Your task to perform on an android device: delete browsing data in the chrome app Image 0: 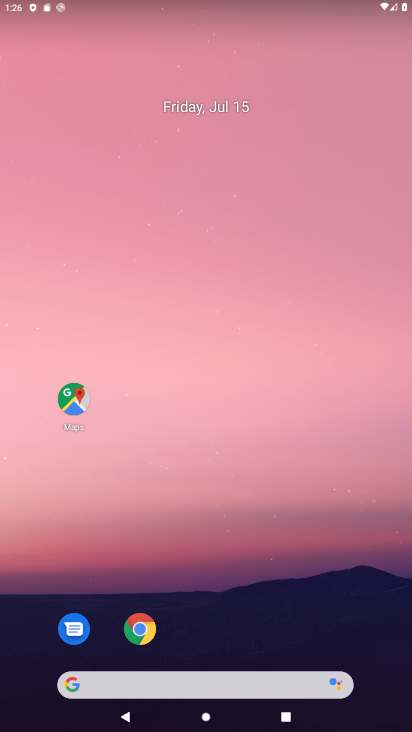
Step 0: press home button
Your task to perform on an android device: delete browsing data in the chrome app Image 1: 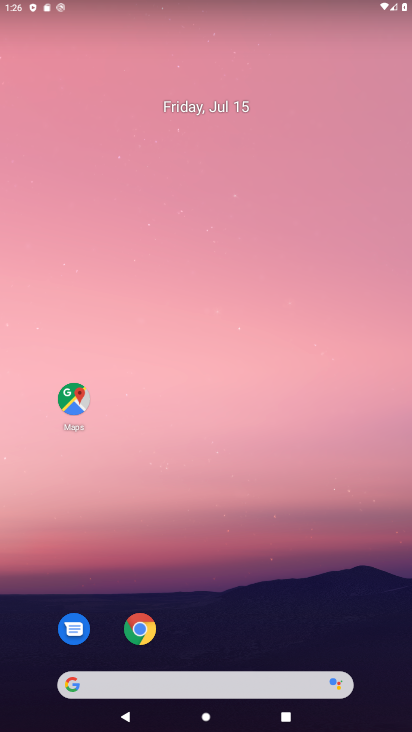
Step 1: click (135, 622)
Your task to perform on an android device: delete browsing data in the chrome app Image 2: 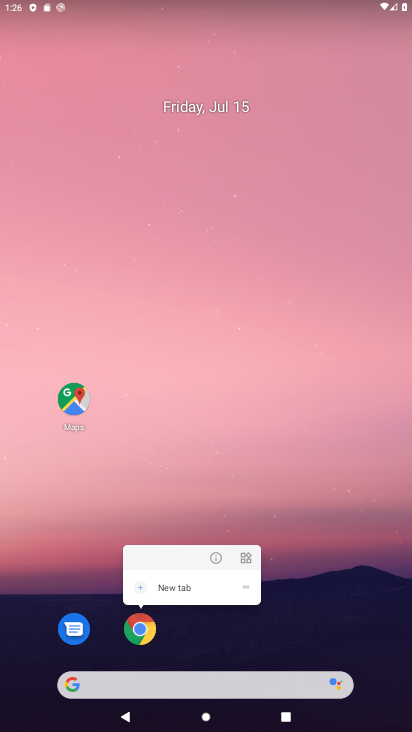
Step 2: click (143, 638)
Your task to perform on an android device: delete browsing data in the chrome app Image 3: 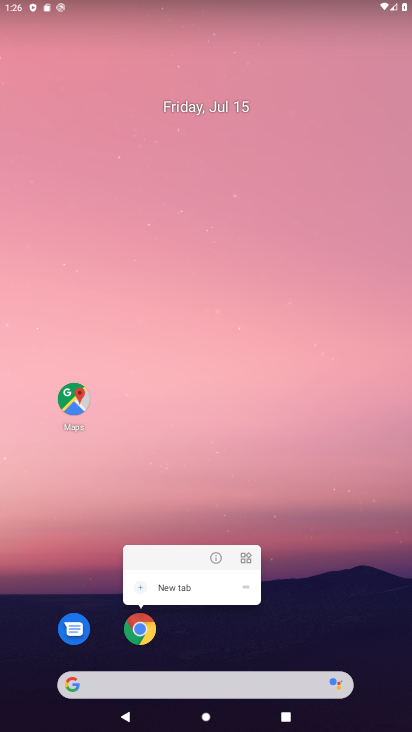
Step 3: click (145, 630)
Your task to perform on an android device: delete browsing data in the chrome app Image 4: 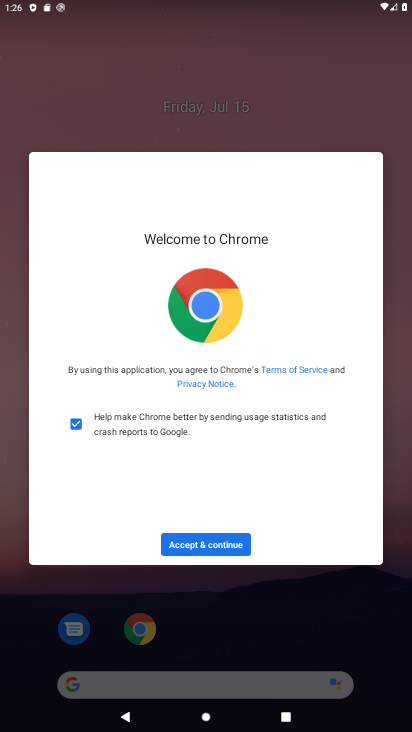
Step 4: click (221, 543)
Your task to perform on an android device: delete browsing data in the chrome app Image 5: 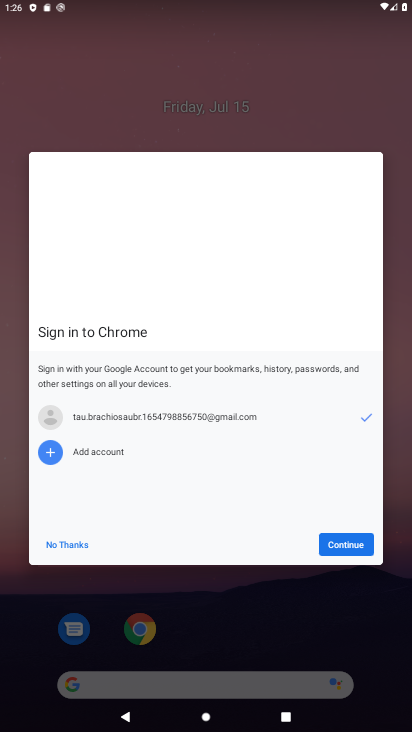
Step 5: click (357, 556)
Your task to perform on an android device: delete browsing data in the chrome app Image 6: 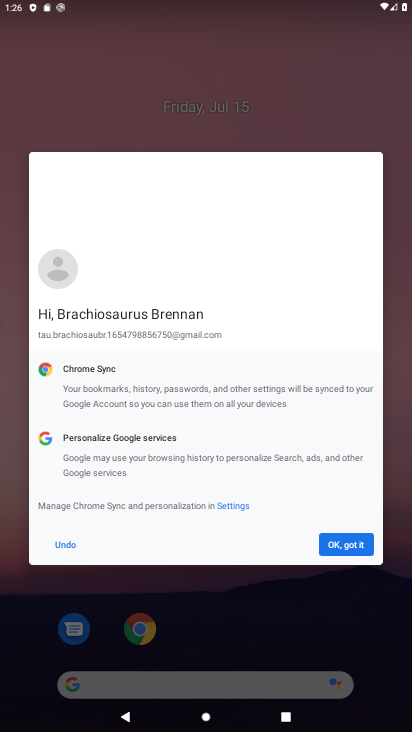
Step 6: click (362, 544)
Your task to perform on an android device: delete browsing data in the chrome app Image 7: 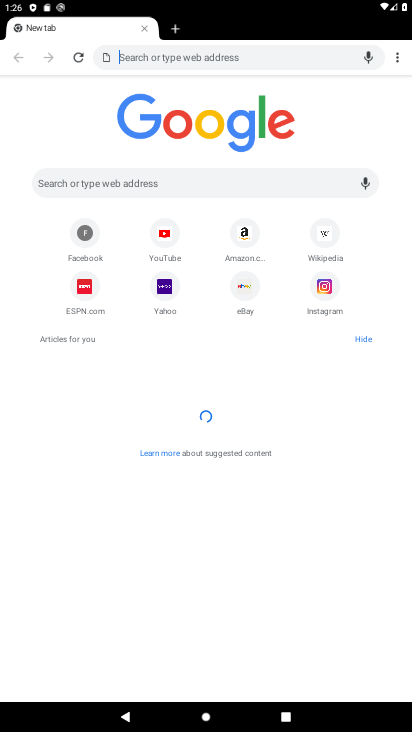
Step 7: drag from (396, 57) to (298, 268)
Your task to perform on an android device: delete browsing data in the chrome app Image 8: 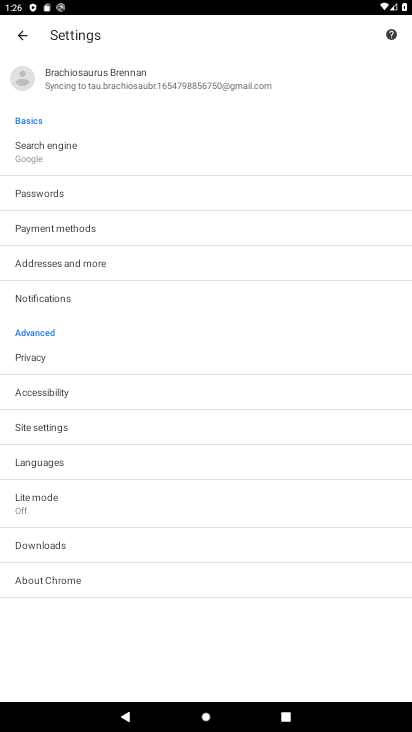
Step 8: click (45, 355)
Your task to perform on an android device: delete browsing data in the chrome app Image 9: 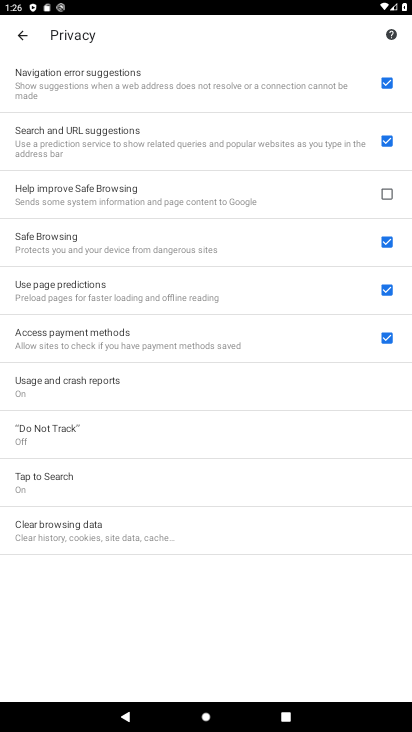
Step 9: click (135, 518)
Your task to perform on an android device: delete browsing data in the chrome app Image 10: 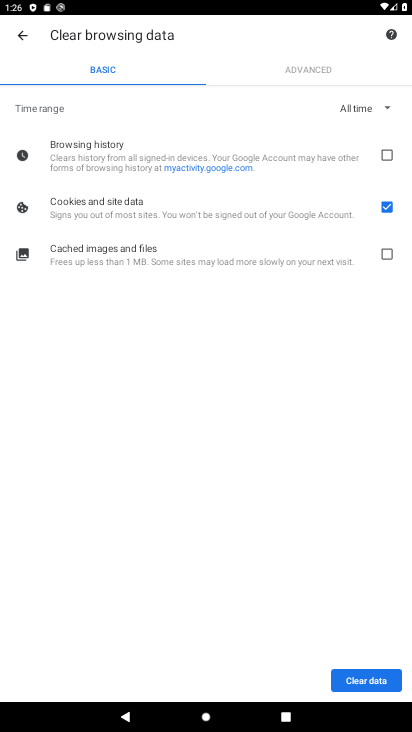
Step 10: click (388, 152)
Your task to perform on an android device: delete browsing data in the chrome app Image 11: 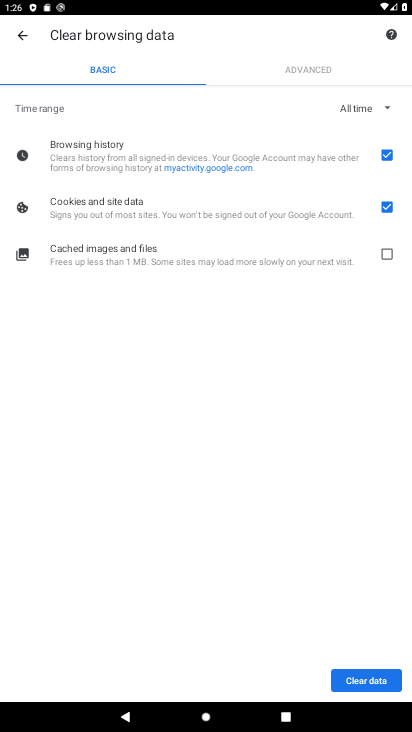
Step 11: click (387, 248)
Your task to perform on an android device: delete browsing data in the chrome app Image 12: 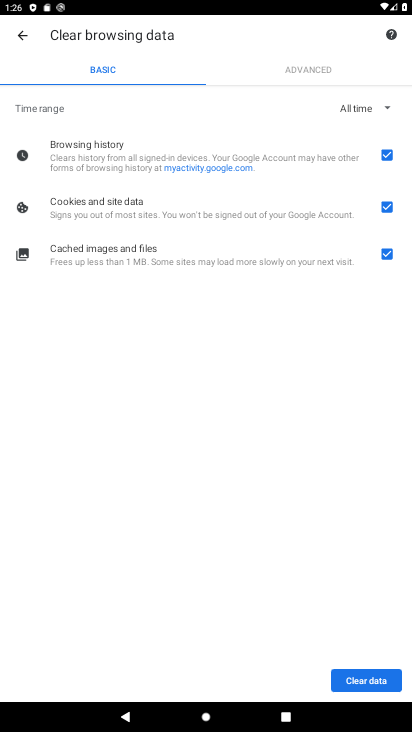
Step 12: click (355, 682)
Your task to perform on an android device: delete browsing data in the chrome app Image 13: 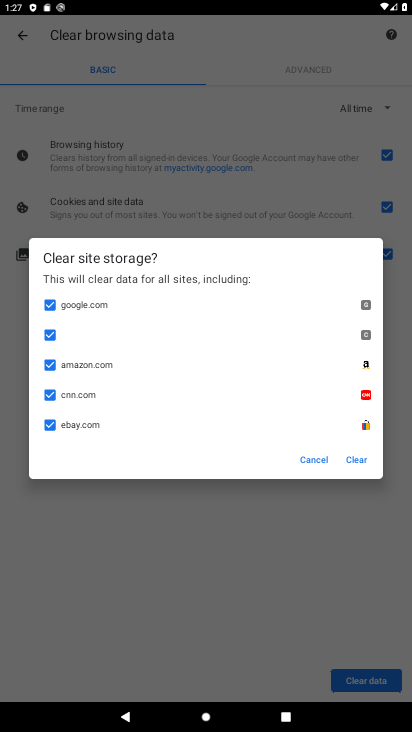
Step 13: click (357, 461)
Your task to perform on an android device: delete browsing data in the chrome app Image 14: 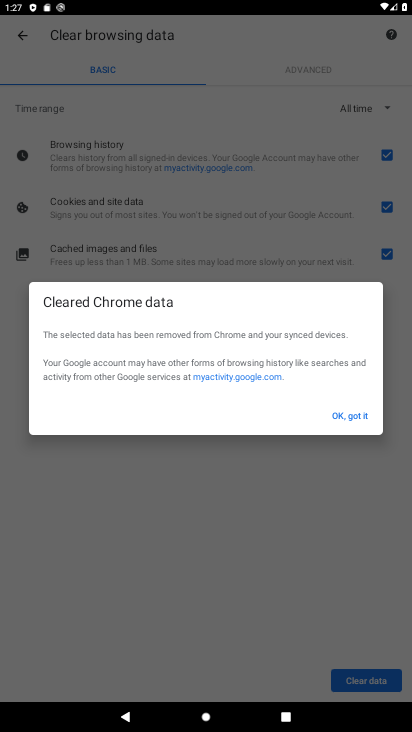
Step 14: click (355, 418)
Your task to perform on an android device: delete browsing data in the chrome app Image 15: 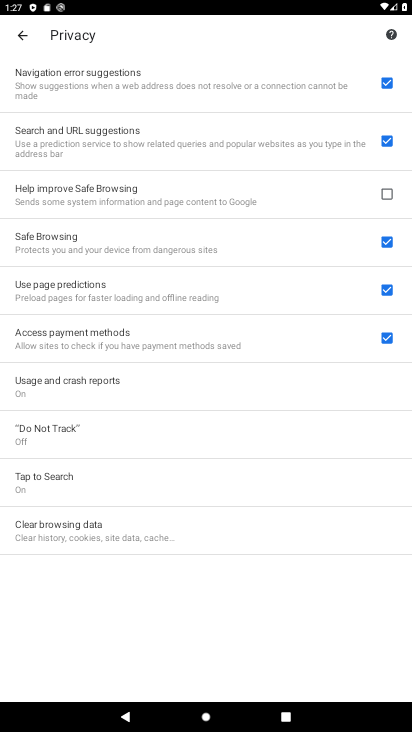
Step 15: task complete